Your task to perform on an android device: Search for Italian restaurants on Maps Image 0: 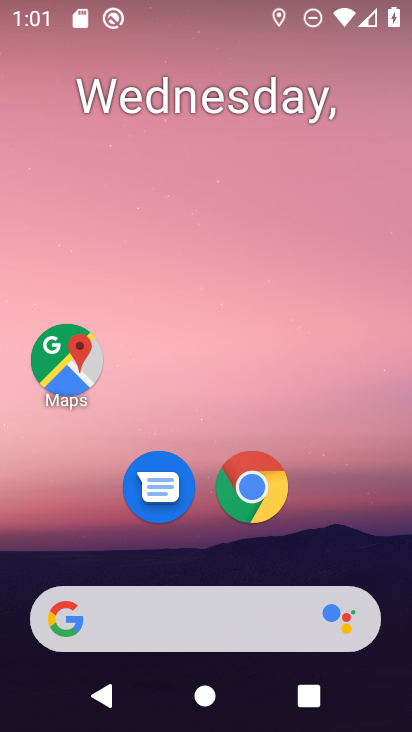
Step 0: drag from (373, 539) to (376, 85)
Your task to perform on an android device: Search for Italian restaurants on Maps Image 1: 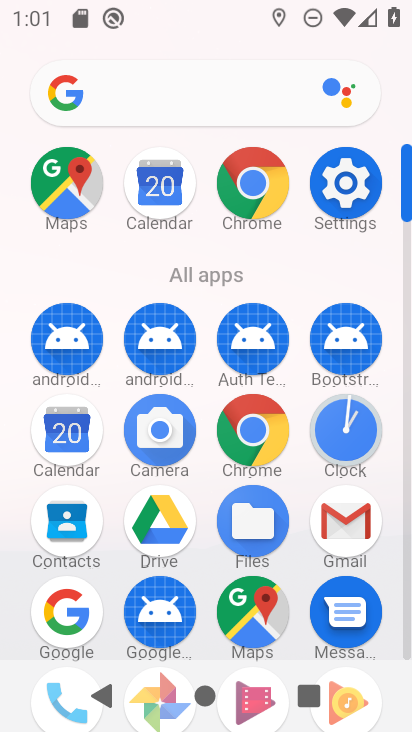
Step 1: click (243, 625)
Your task to perform on an android device: Search for Italian restaurants on Maps Image 2: 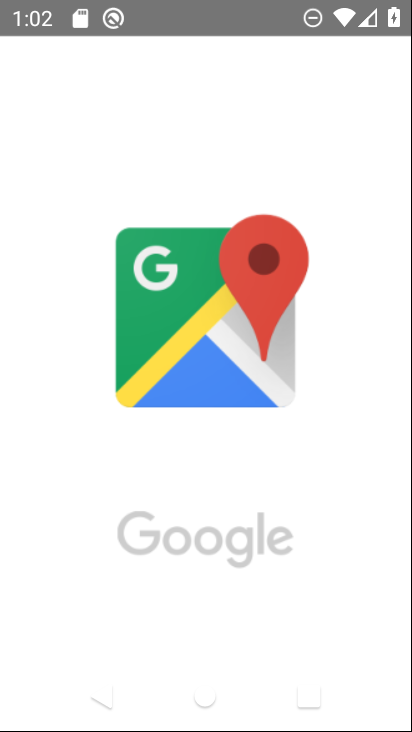
Step 2: task complete